Your task to perform on an android device: turn off location history Image 0: 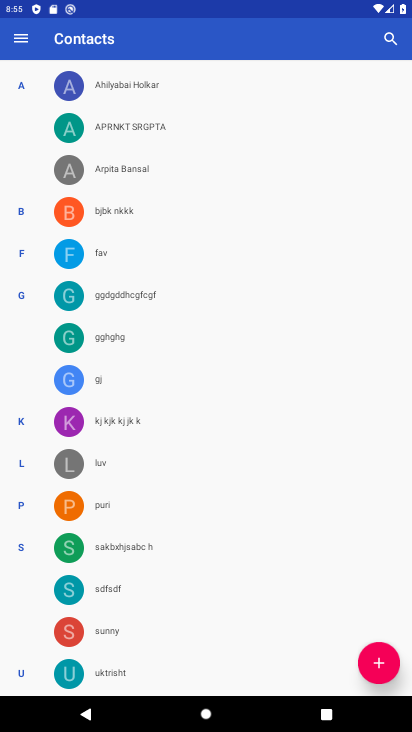
Step 0: press home button
Your task to perform on an android device: turn off location history Image 1: 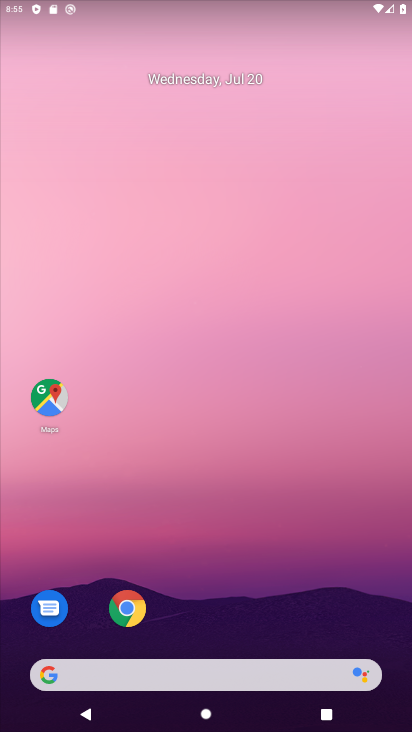
Step 1: drag from (253, 526) to (239, 38)
Your task to perform on an android device: turn off location history Image 2: 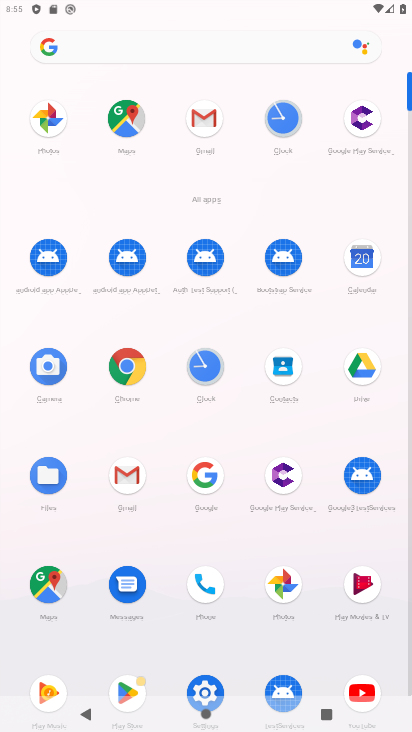
Step 2: click (128, 107)
Your task to perform on an android device: turn off location history Image 3: 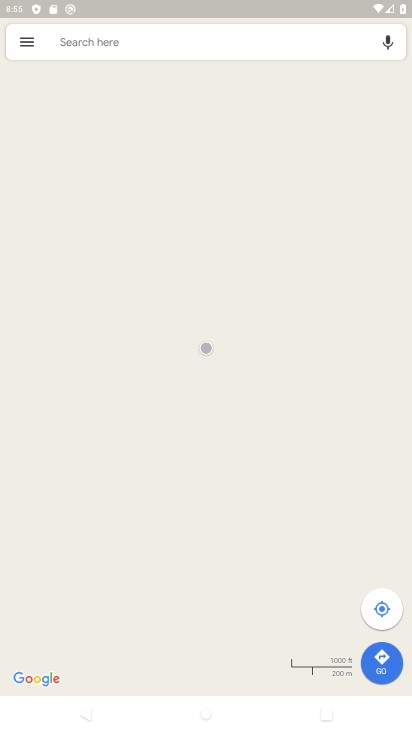
Step 3: click (29, 35)
Your task to perform on an android device: turn off location history Image 4: 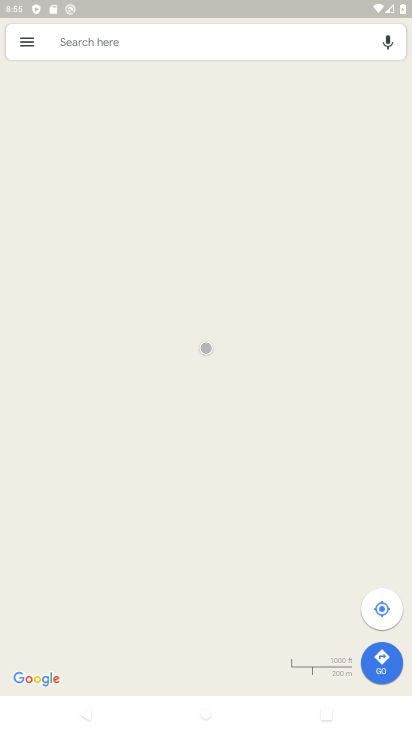
Step 4: click (29, 35)
Your task to perform on an android device: turn off location history Image 5: 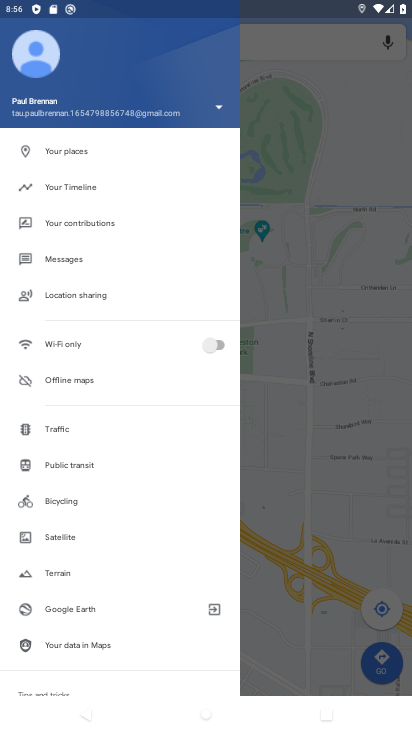
Step 5: click (118, 187)
Your task to perform on an android device: turn off location history Image 6: 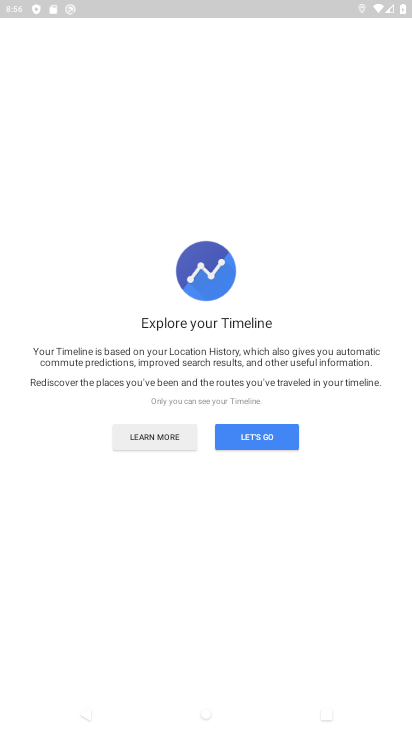
Step 6: click (291, 439)
Your task to perform on an android device: turn off location history Image 7: 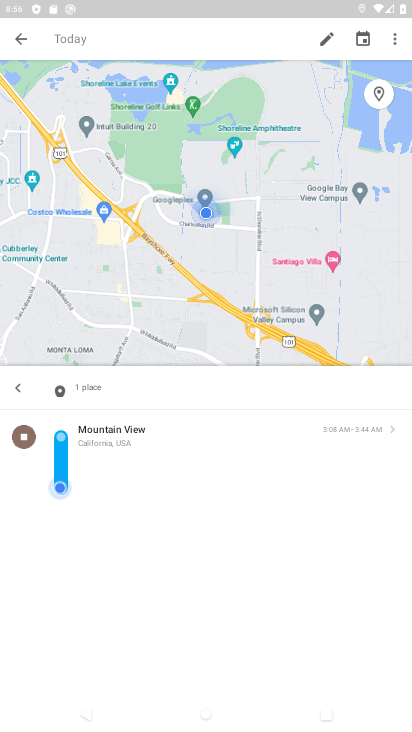
Step 7: click (392, 41)
Your task to perform on an android device: turn off location history Image 8: 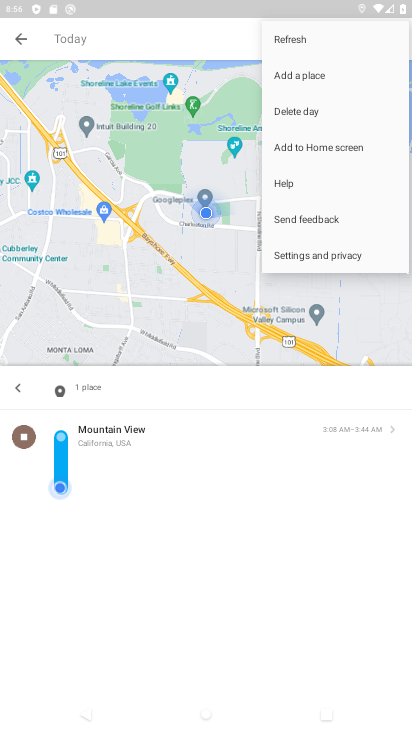
Step 8: click (313, 253)
Your task to perform on an android device: turn off location history Image 9: 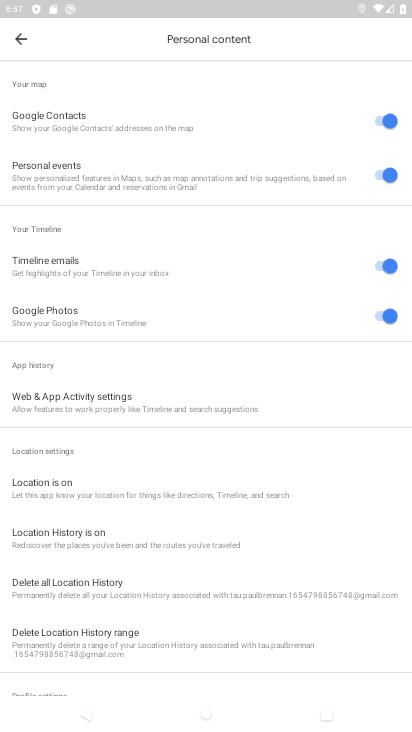
Step 9: click (117, 588)
Your task to perform on an android device: turn off location history Image 10: 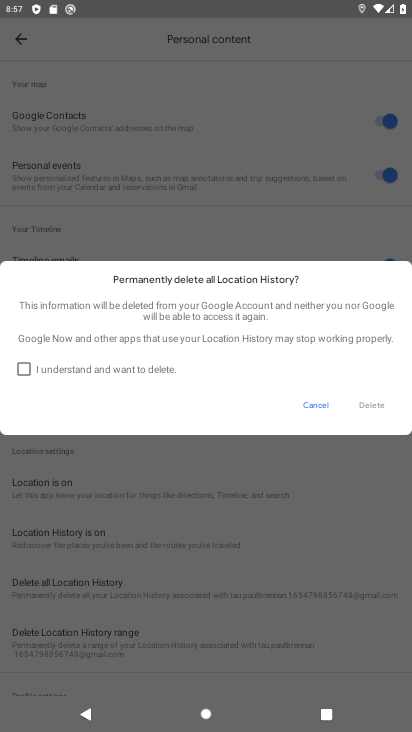
Step 10: click (21, 368)
Your task to perform on an android device: turn off location history Image 11: 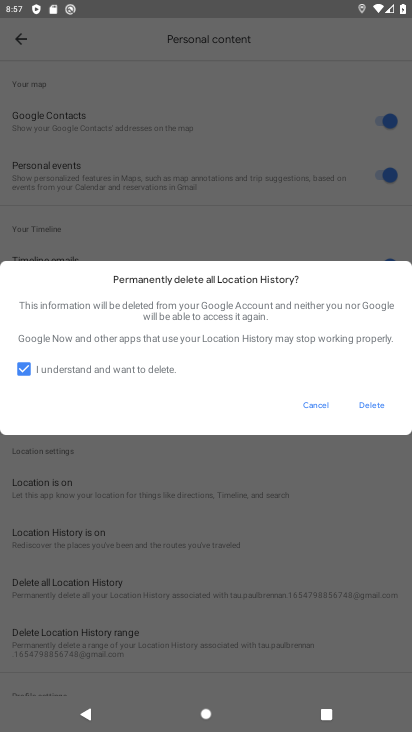
Step 11: click (371, 409)
Your task to perform on an android device: turn off location history Image 12: 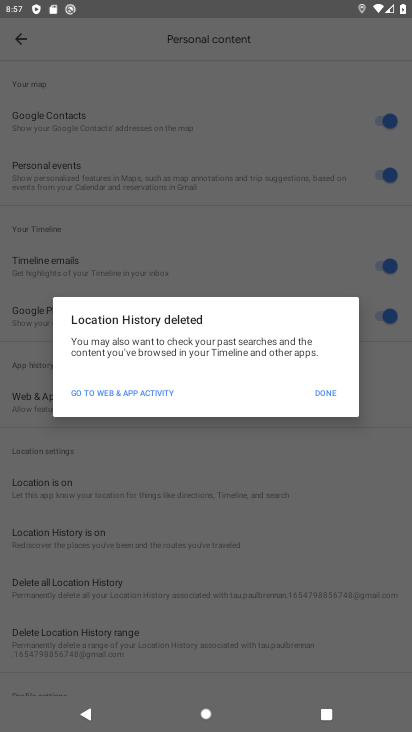
Step 12: click (326, 393)
Your task to perform on an android device: turn off location history Image 13: 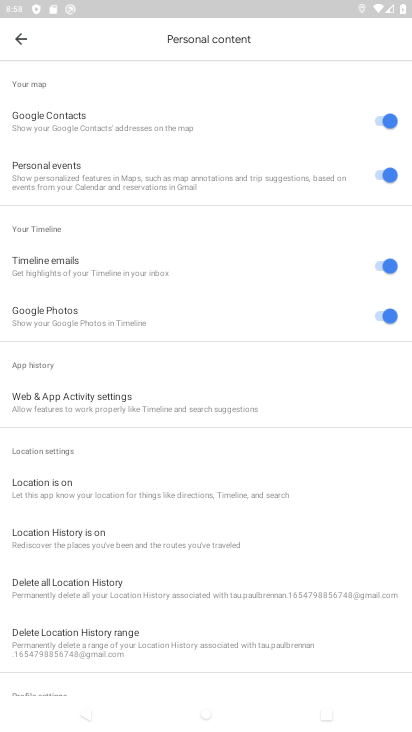
Step 13: click (126, 537)
Your task to perform on an android device: turn off location history Image 14: 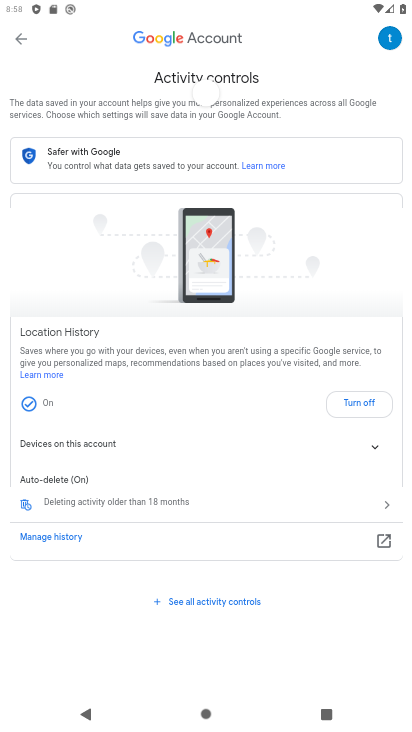
Step 14: click (357, 402)
Your task to perform on an android device: turn off location history Image 15: 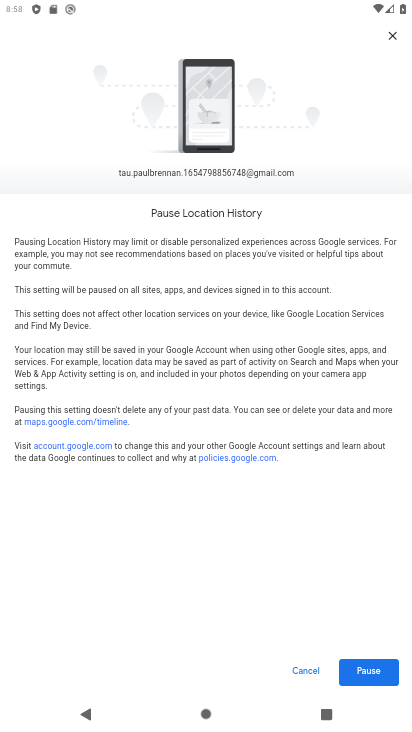
Step 15: click (354, 669)
Your task to perform on an android device: turn off location history Image 16: 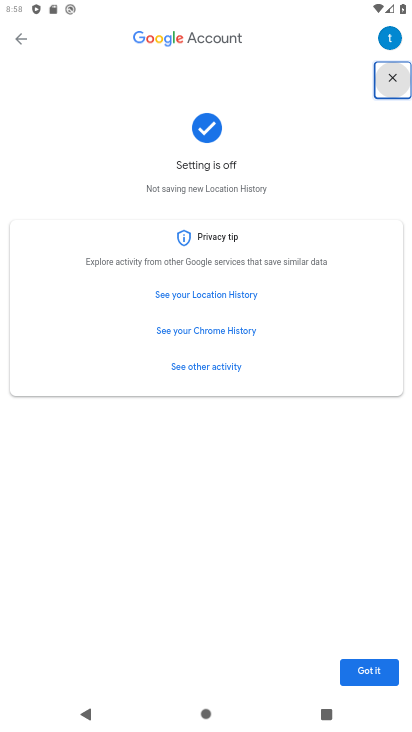
Step 16: click (366, 678)
Your task to perform on an android device: turn off location history Image 17: 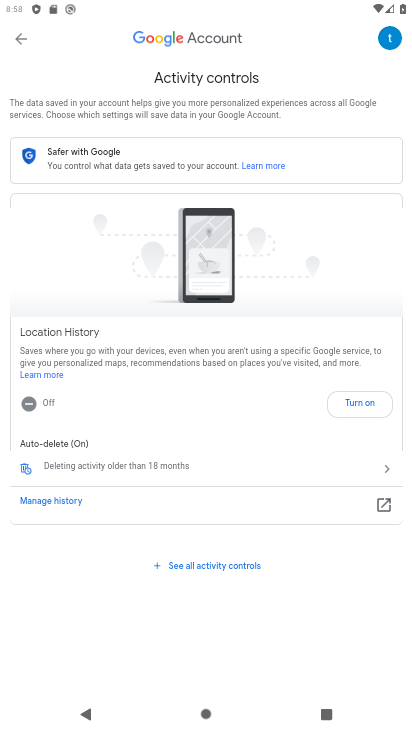
Step 17: task complete